Your task to perform on an android device: Open eBay Image 0: 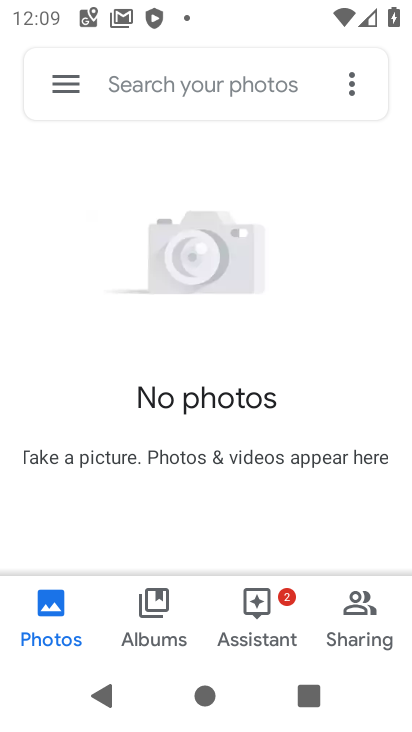
Step 0: press back button
Your task to perform on an android device: Open eBay Image 1: 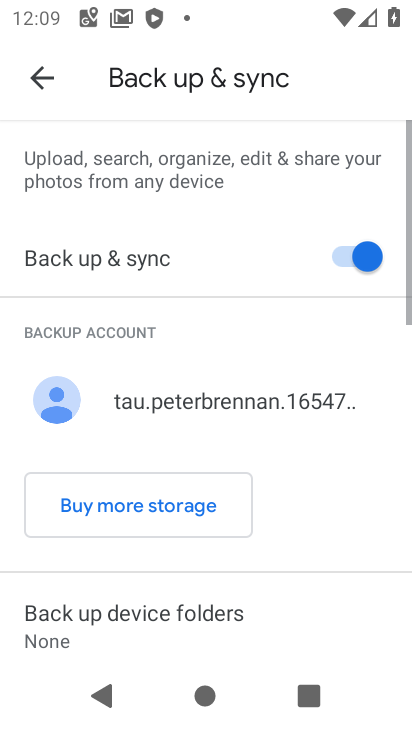
Step 1: press back button
Your task to perform on an android device: Open eBay Image 2: 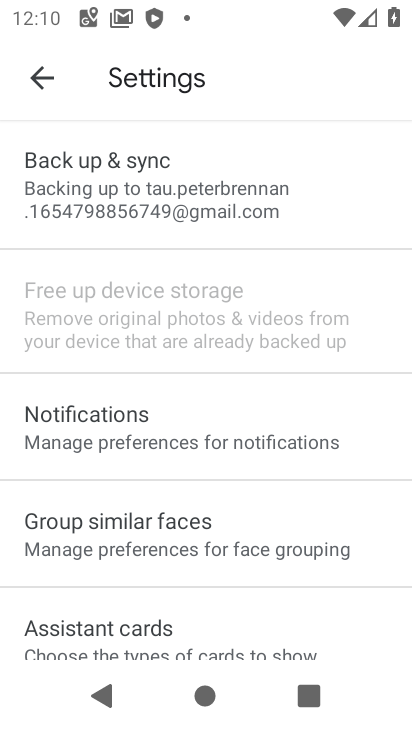
Step 2: press back button
Your task to perform on an android device: Open eBay Image 3: 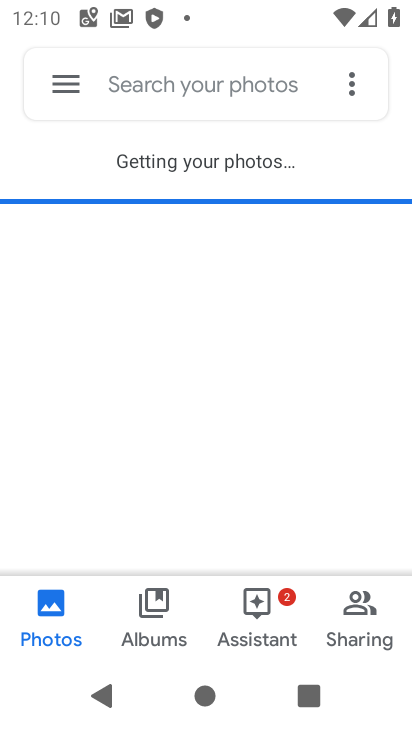
Step 3: press back button
Your task to perform on an android device: Open eBay Image 4: 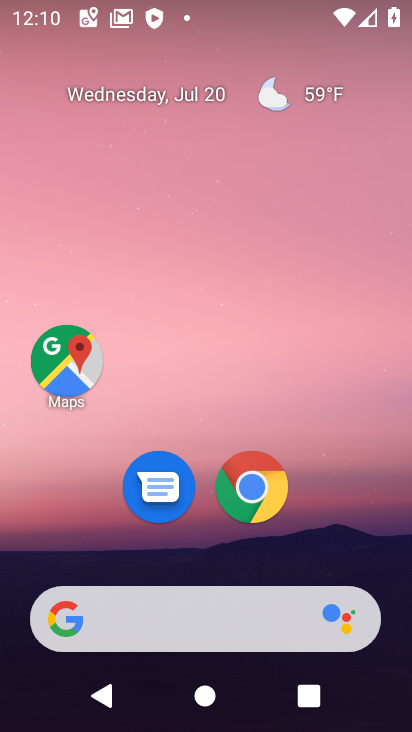
Step 4: click (255, 477)
Your task to perform on an android device: Open eBay Image 5: 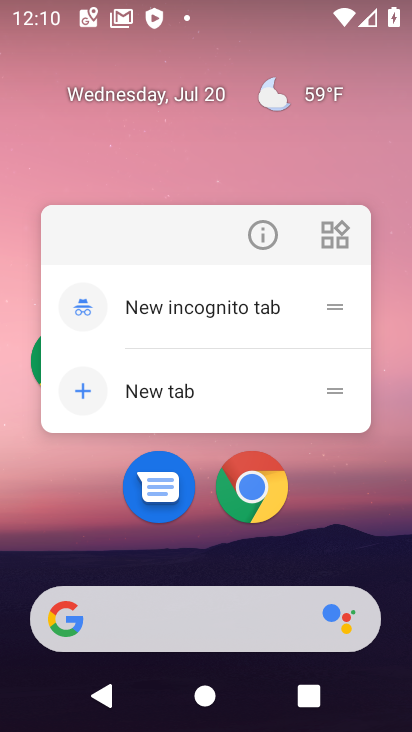
Step 5: click (255, 477)
Your task to perform on an android device: Open eBay Image 6: 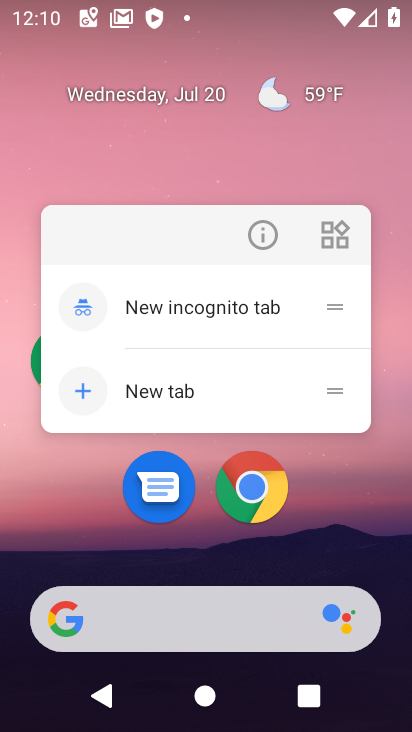
Step 6: click (261, 481)
Your task to perform on an android device: Open eBay Image 7: 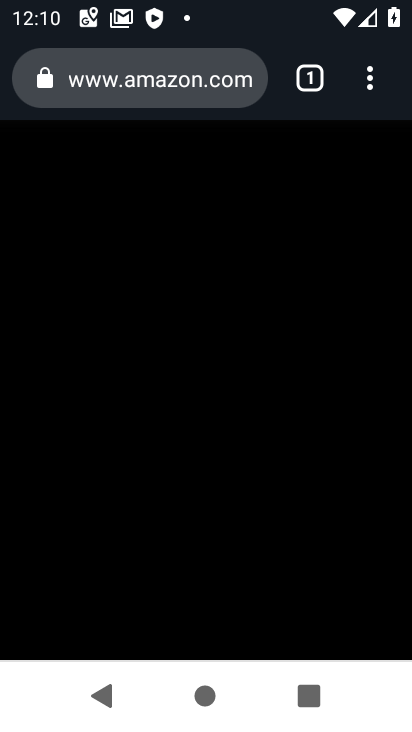
Step 7: click (312, 69)
Your task to perform on an android device: Open eBay Image 8: 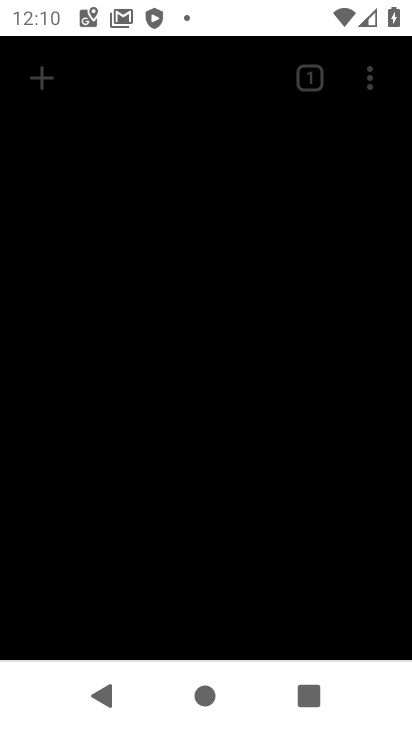
Step 8: press back button
Your task to perform on an android device: Open eBay Image 9: 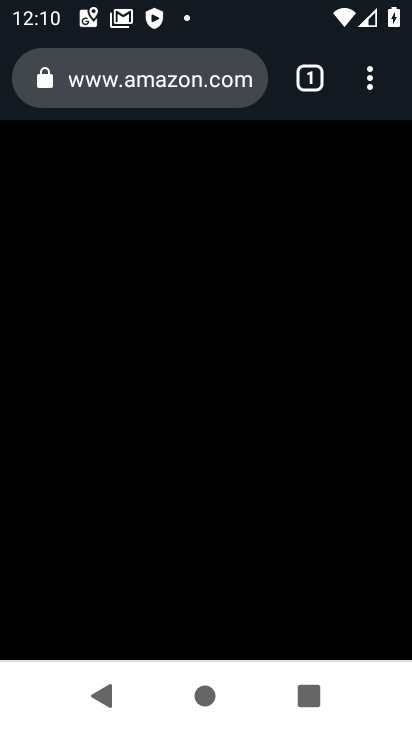
Step 9: click (302, 70)
Your task to perform on an android device: Open eBay Image 10: 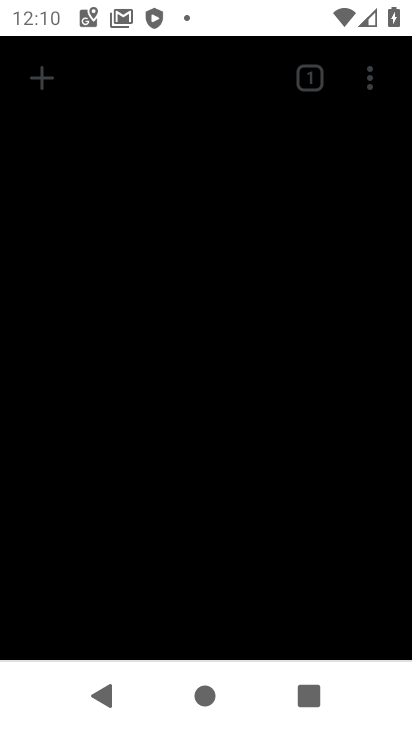
Step 10: click (298, 78)
Your task to perform on an android device: Open eBay Image 11: 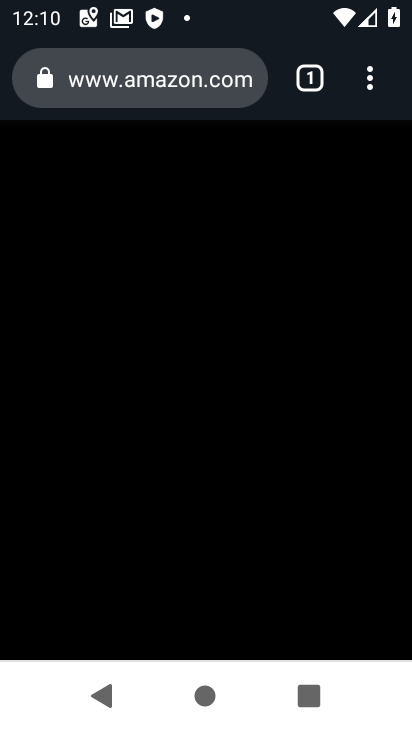
Step 11: click (311, 75)
Your task to perform on an android device: Open eBay Image 12: 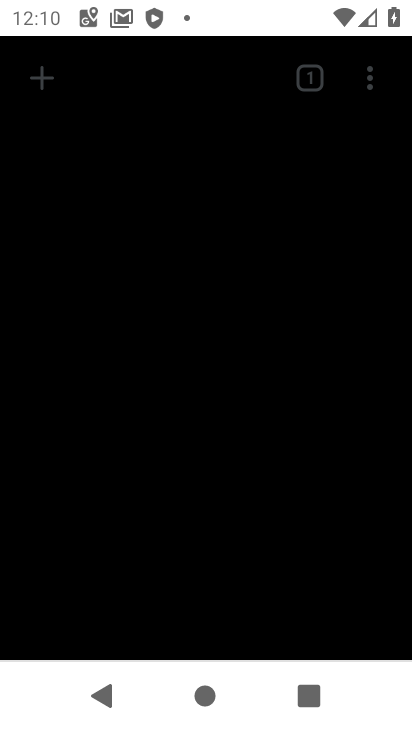
Step 12: click (54, 81)
Your task to perform on an android device: Open eBay Image 13: 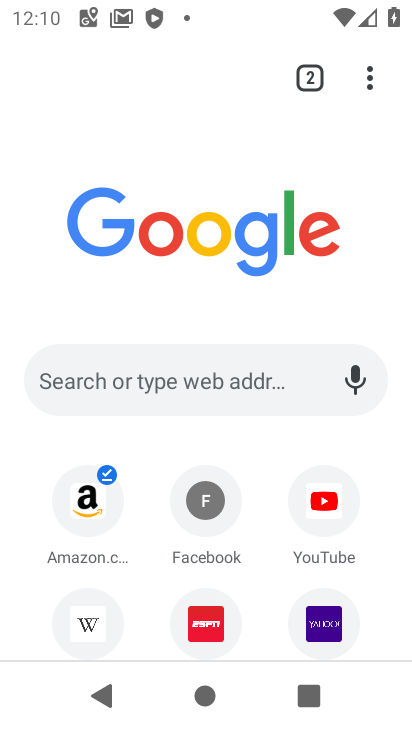
Step 13: drag from (126, 595) to (229, 256)
Your task to perform on an android device: Open eBay Image 14: 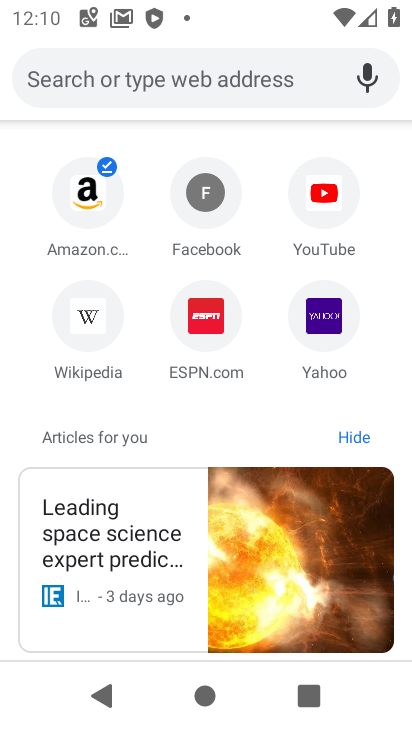
Step 14: click (153, 82)
Your task to perform on an android device: Open eBay Image 15: 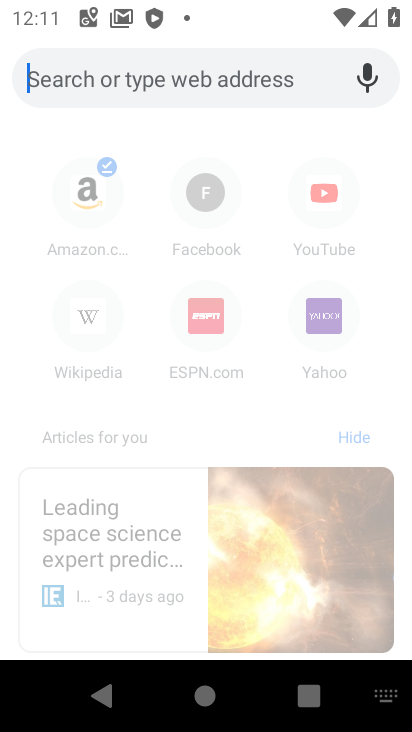
Step 15: type "ebay"
Your task to perform on an android device: Open eBay Image 16: 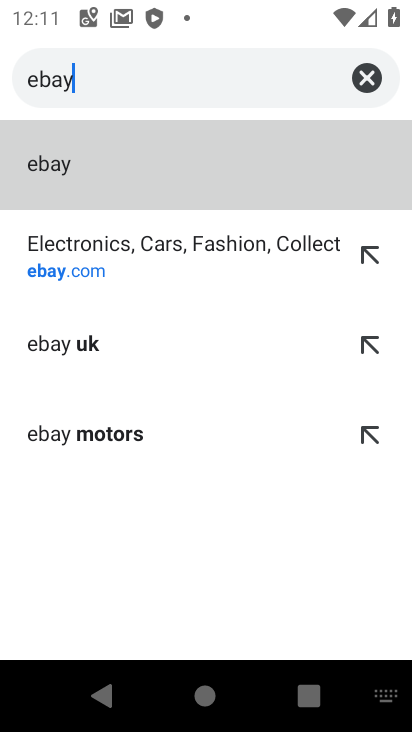
Step 16: click (166, 257)
Your task to perform on an android device: Open eBay Image 17: 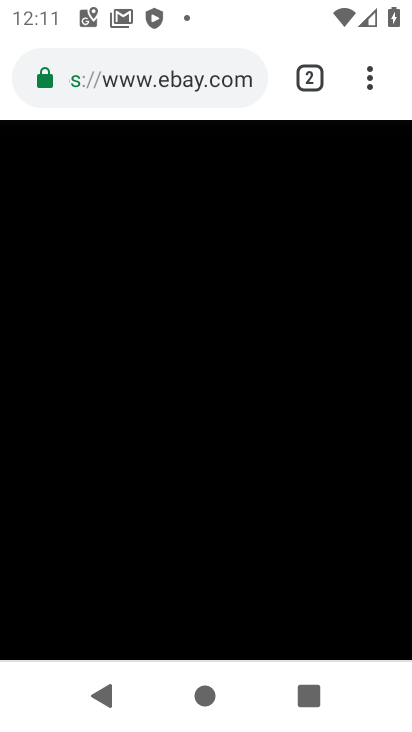
Step 17: task complete